Your task to perform on an android device: Go to Amazon Image 0: 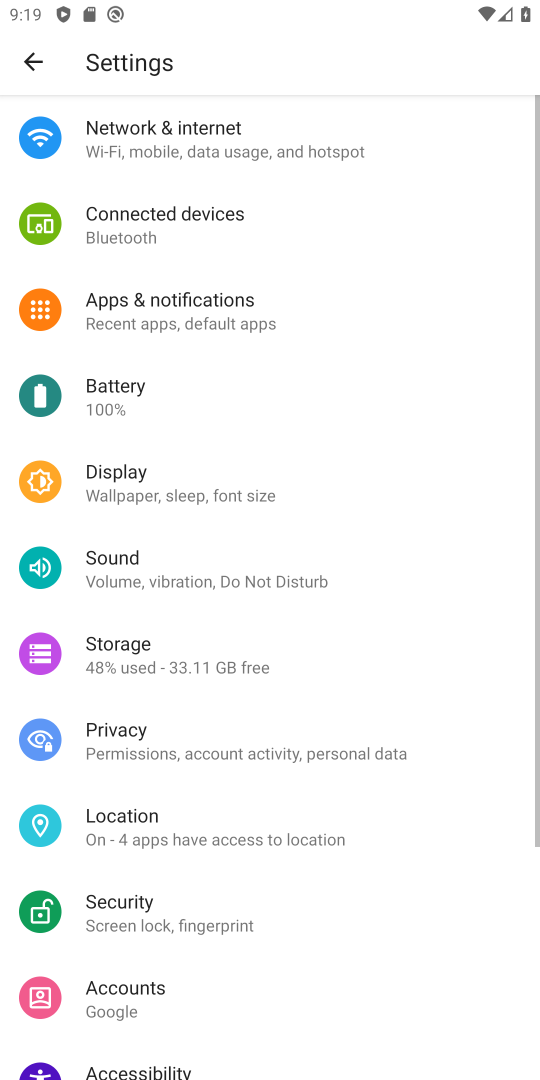
Step 0: press home button
Your task to perform on an android device: Go to Amazon Image 1: 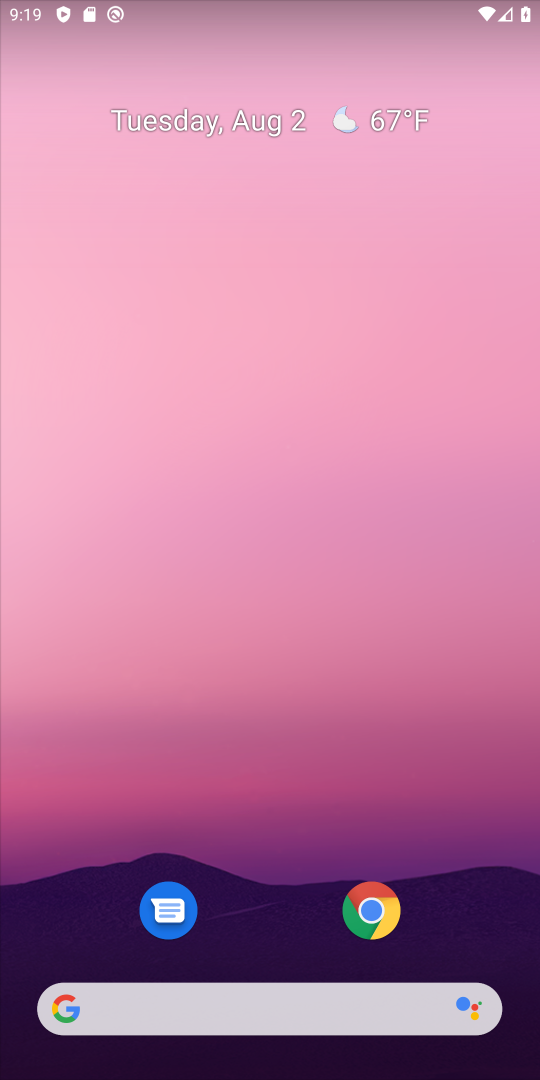
Step 1: drag from (272, 923) to (307, 268)
Your task to perform on an android device: Go to Amazon Image 2: 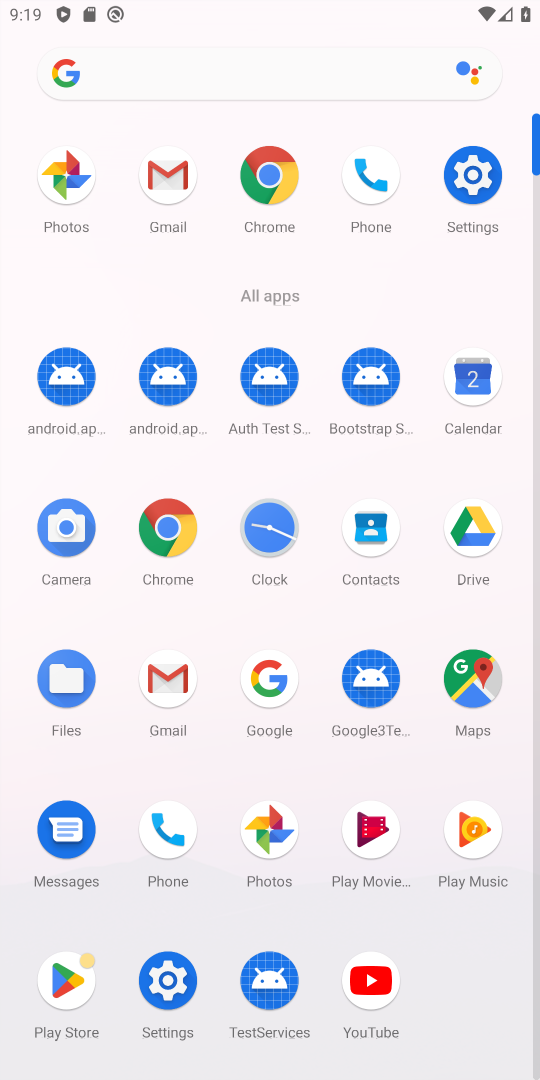
Step 2: click (264, 156)
Your task to perform on an android device: Go to Amazon Image 3: 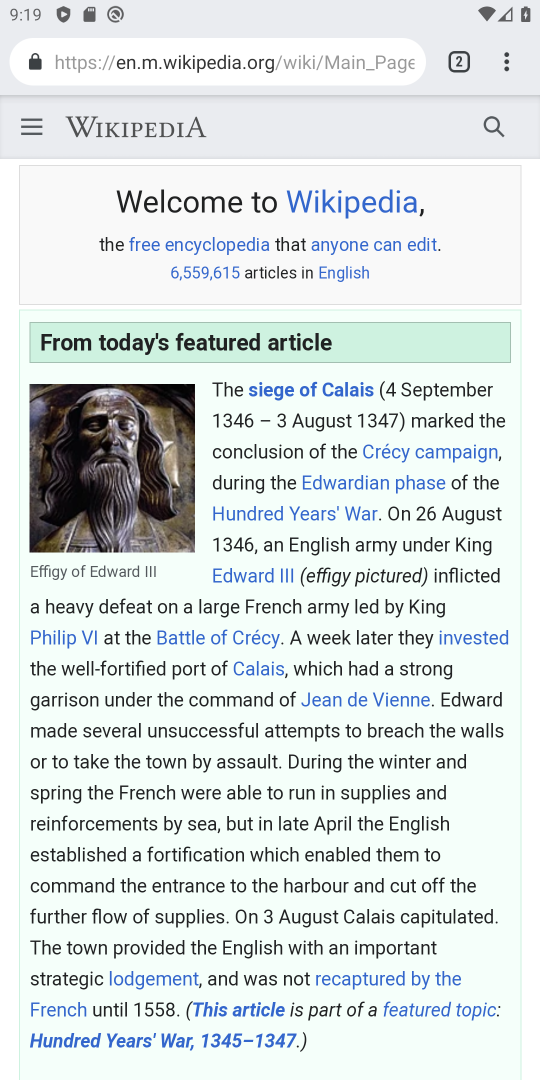
Step 3: click (500, 78)
Your task to perform on an android device: Go to Amazon Image 4: 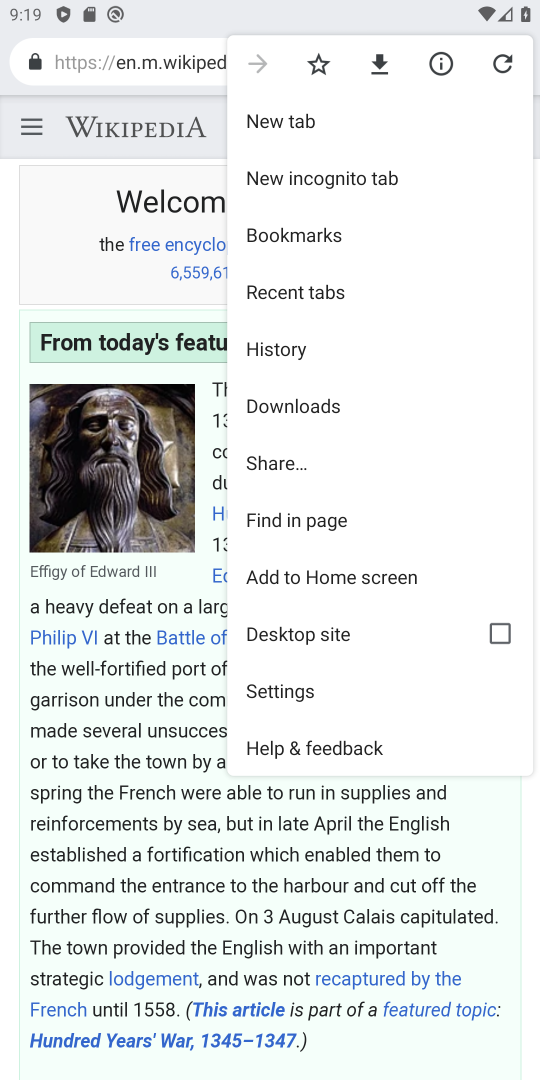
Step 4: click (313, 123)
Your task to perform on an android device: Go to Amazon Image 5: 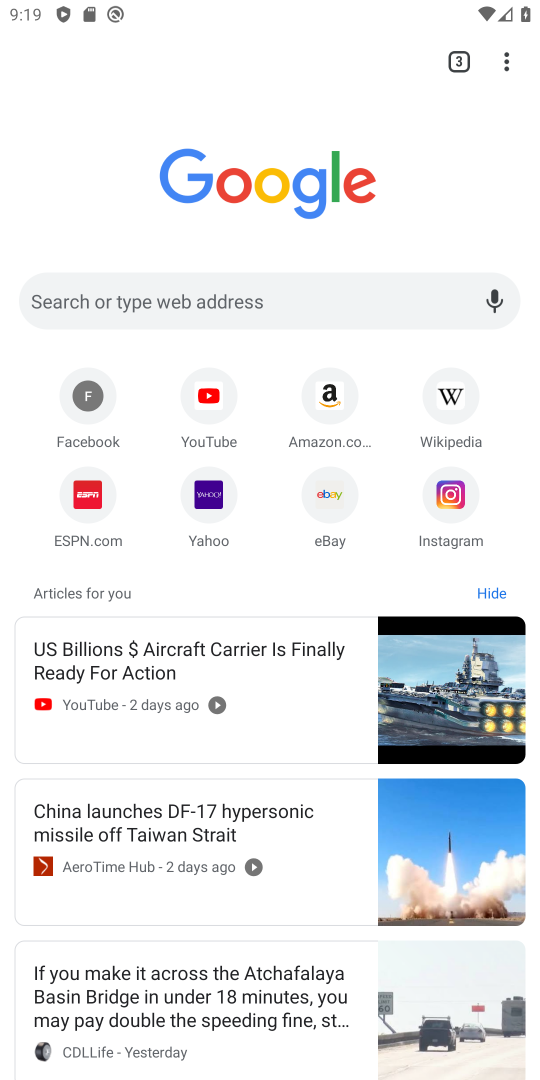
Step 5: click (317, 393)
Your task to perform on an android device: Go to Amazon Image 6: 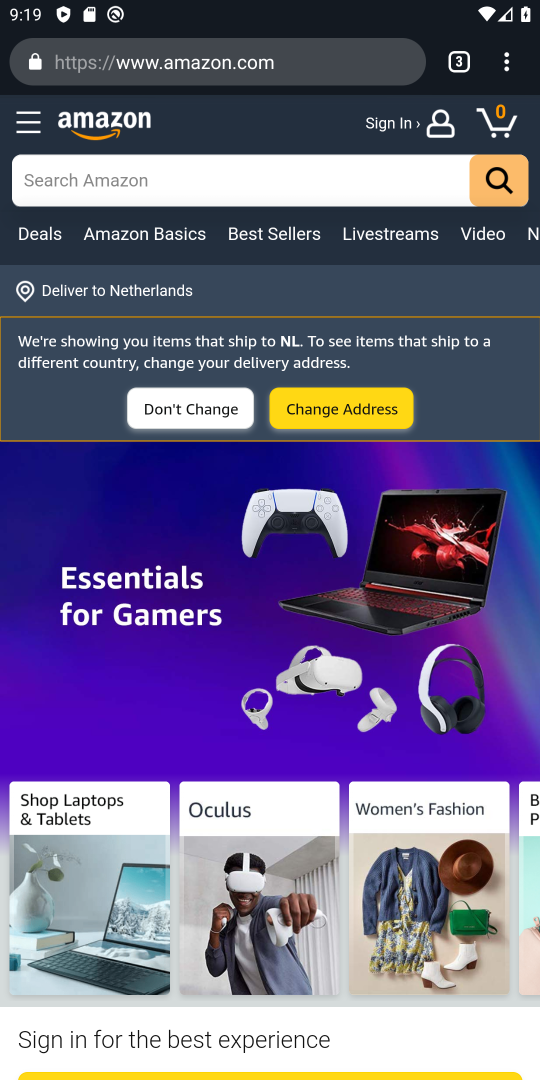
Step 6: task complete